Your task to perform on an android device: visit the assistant section in the google photos Image 0: 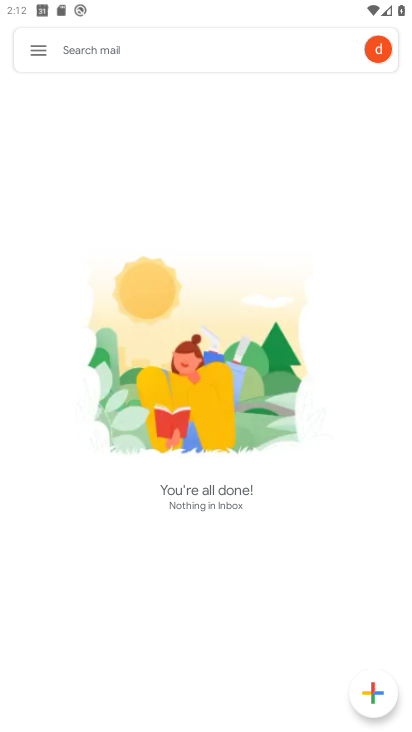
Step 0: press home button
Your task to perform on an android device: visit the assistant section in the google photos Image 1: 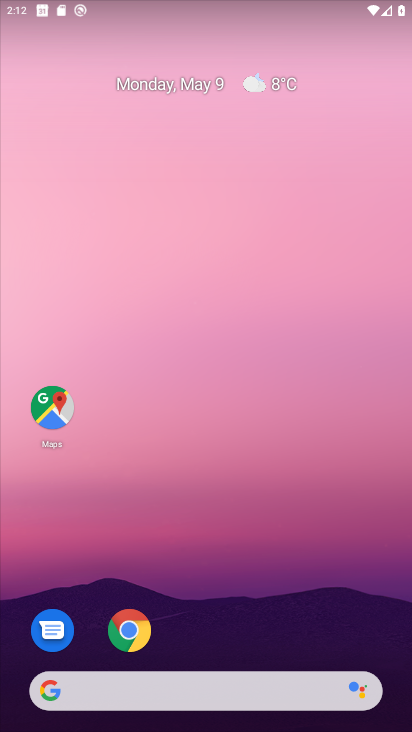
Step 1: drag from (215, 615) to (217, 73)
Your task to perform on an android device: visit the assistant section in the google photos Image 2: 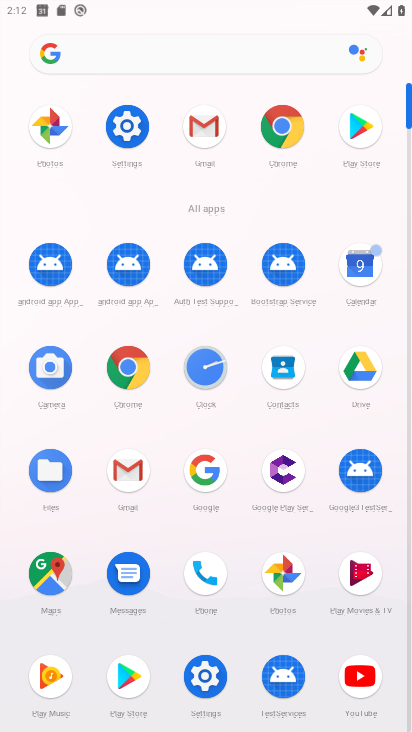
Step 2: click (278, 560)
Your task to perform on an android device: visit the assistant section in the google photos Image 3: 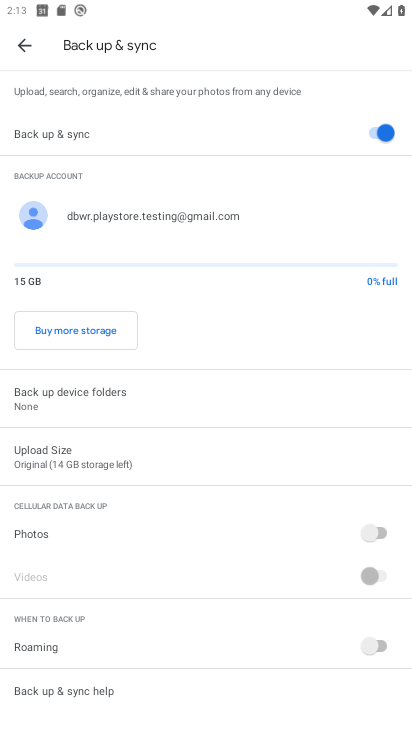
Step 3: click (37, 48)
Your task to perform on an android device: visit the assistant section in the google photos Image 4: 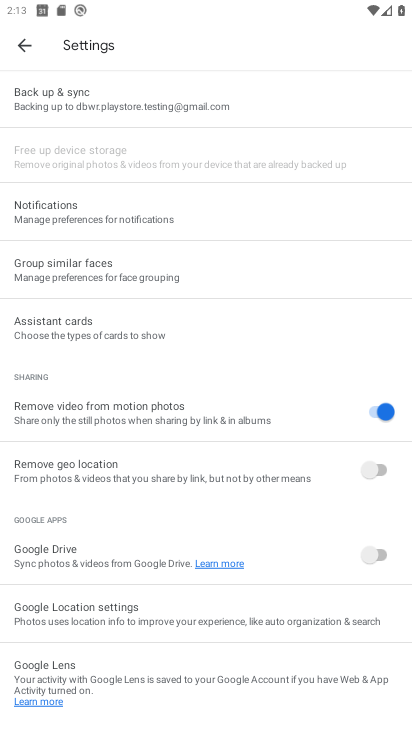
Step 4: click (36, 48)
Your task to perform on an android device: visit the assistant section in the google photos Image 5: 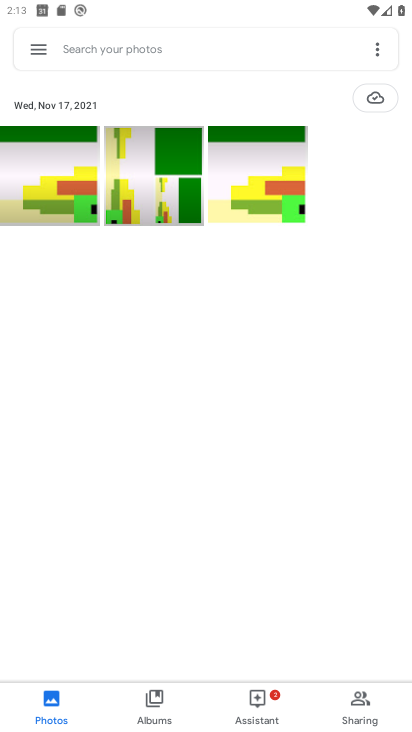
Step 5: click (245, 715)
Your task to perform on an android device: visit the assistant section in the google photos Image 6: 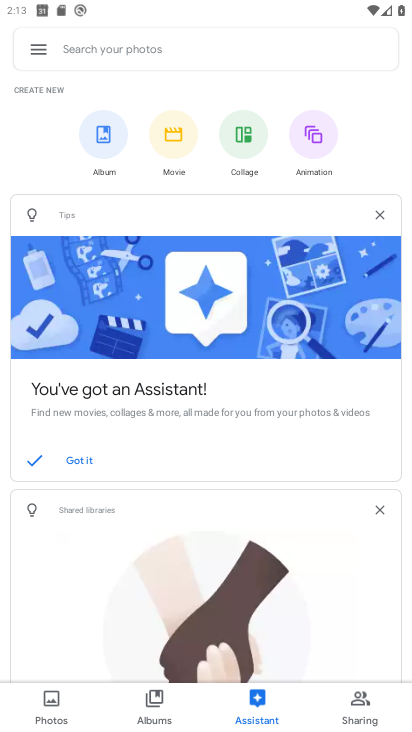
Step 6: task complete